Your task to perform on an android device: show emergency info Image 0: 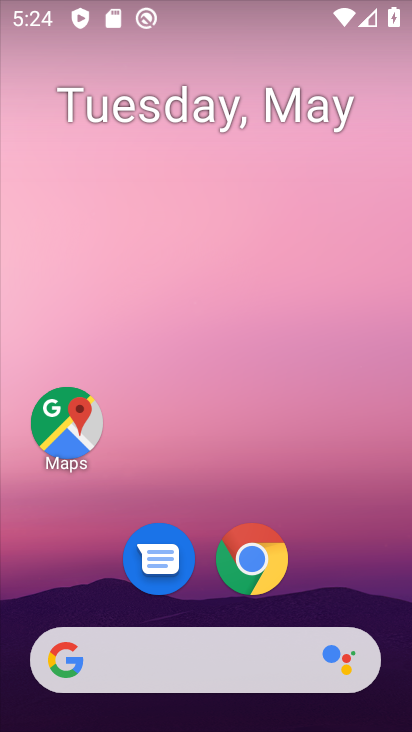
Step 0: drag from (198, 599) to (200, 275)
Your task to perform on an android device: show emergency info Image 1: 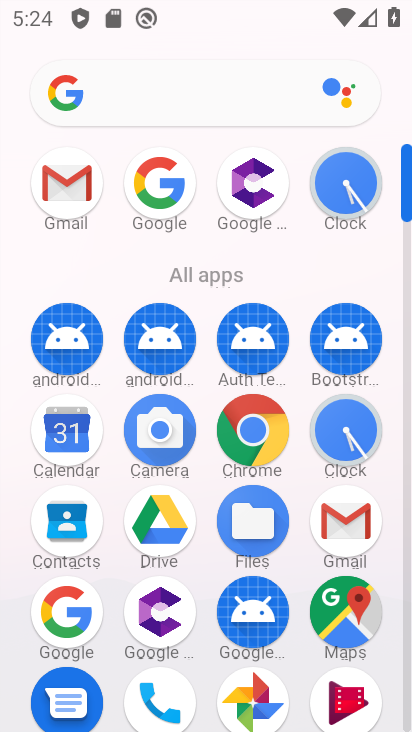
Step 1: drag from (274, 645) to (298, 353)
Your task to perform on an android device: show emergency info Image 2: 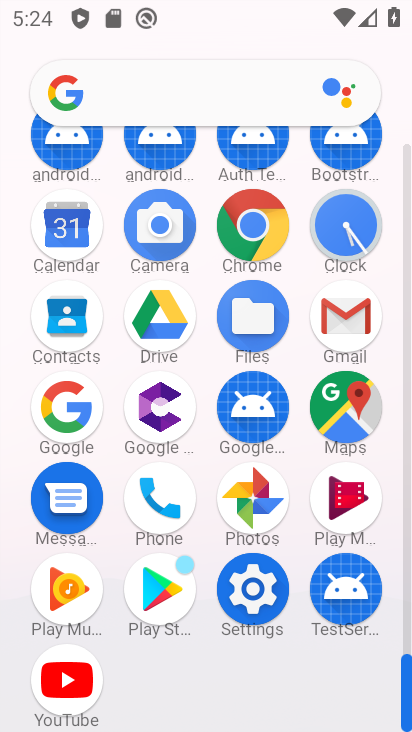
Step 2: click (252, 601)
Your task to perform on an android device: show emergency info Image 3: 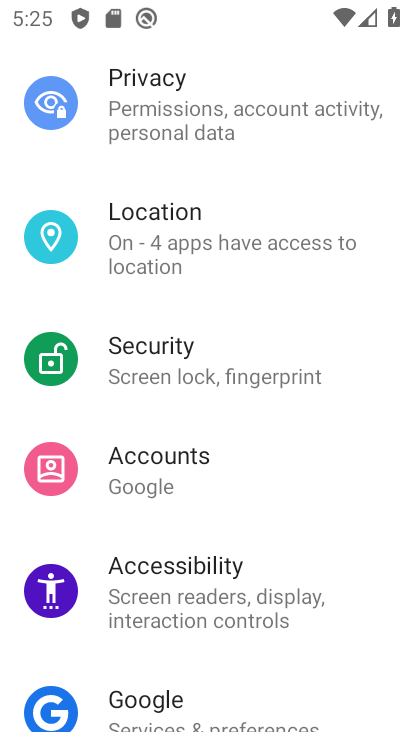
Step 3: drag from (187, 351) to (178, 420)
Your task to perform on an android device: show emergency info Image 4: 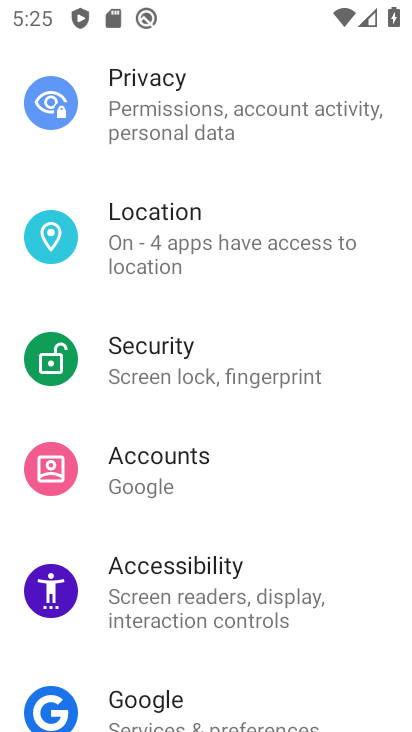
Step 4: drag from (178, 200) to (196, 328)
Your task to perform on an android device: show emergency info Image 5: 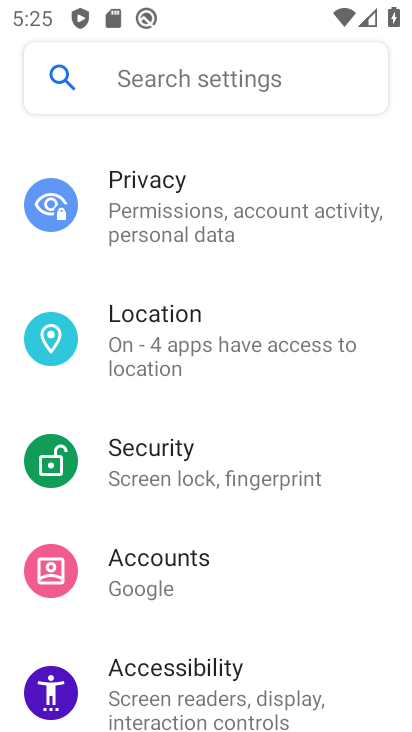
Step 5: drag from (199, 289) to (197, 358)
Your task to perform on an android device: show emergency info Image 6: 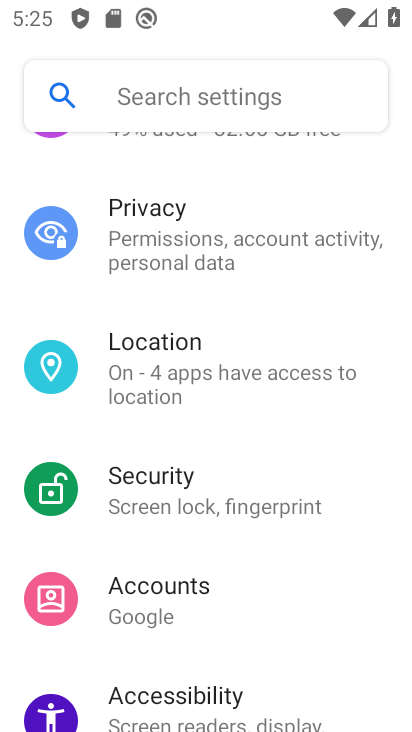
Step 6: drag from (210, 236) to (207, 429)
Your task to perform on an android device: show emergency info Image 7: 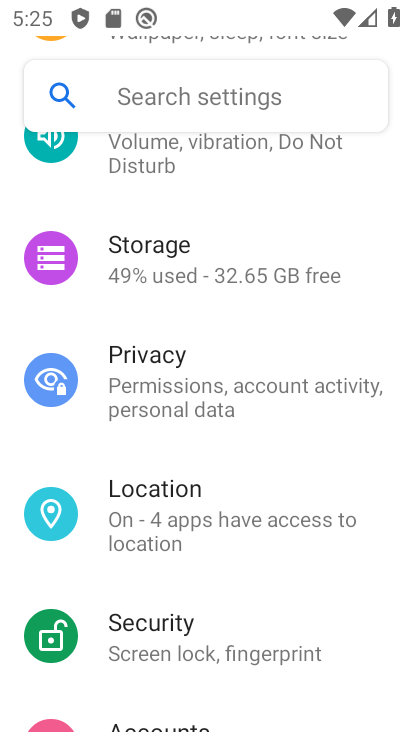
Step 7: drag from (194, 610) to (226, 366)
Your task to perform on an android device: show emergency info Image 8: 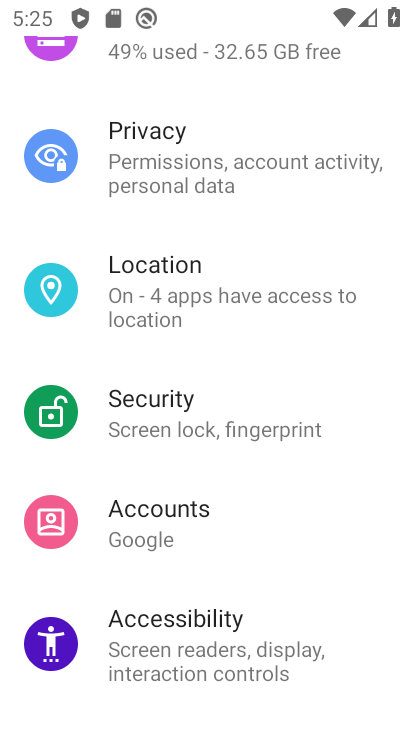
Step 8: drag from (179, 532) to (208, 225)
Your task to perform on an android device: show emergency info Image 9: 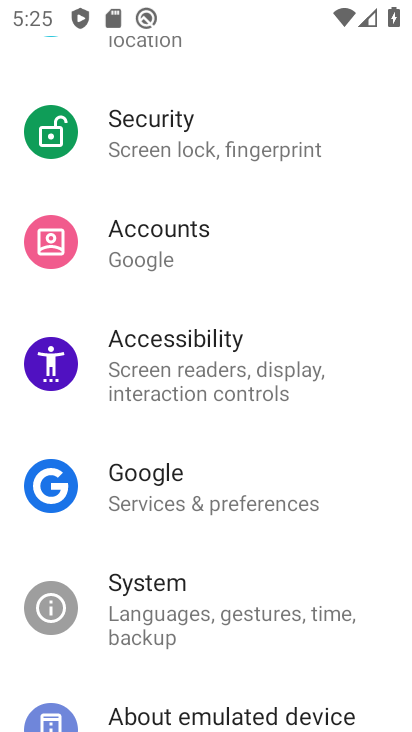
Step 9: drag from (197, 436) to (209, 160)
Your task to perform on an android device: show emergency info Image 10: 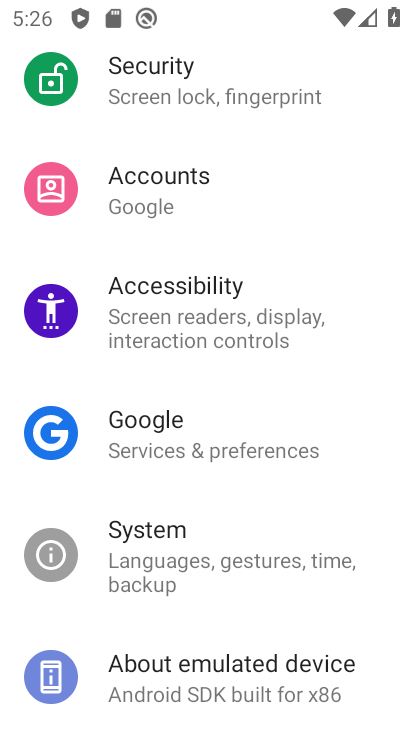
Step 10: click (186, 678)
Your task to perform on an android device: show emergency info Image 11: 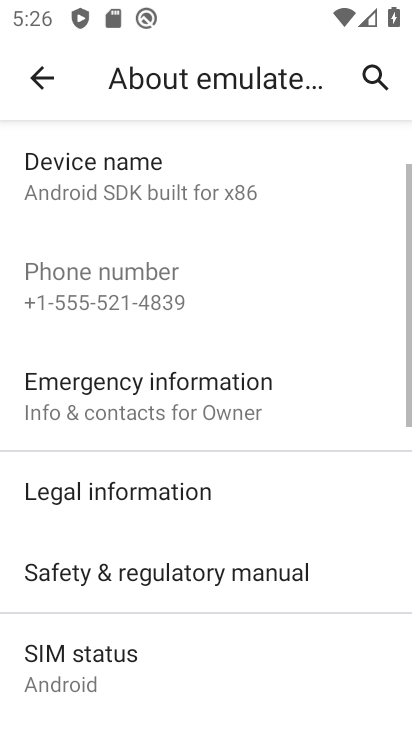
Step 11: drag from (175, 608) to (218, 306)
Your task to perform on an android device: show emergency info Image 12: 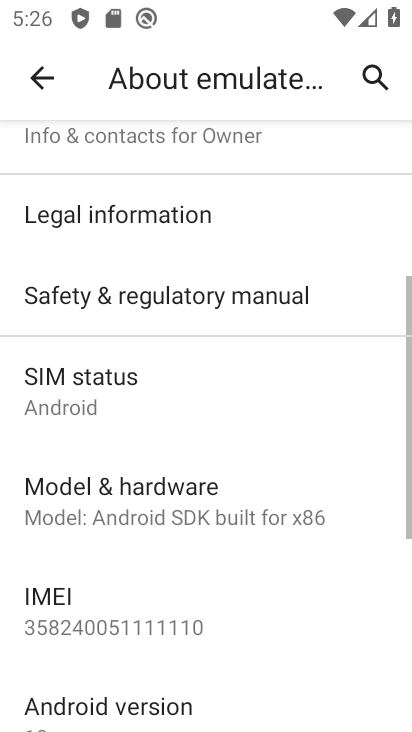
Step 12: drag from (140, 634) to (164, 350)
Your task to perform on an android device: show emergency info Image 13: 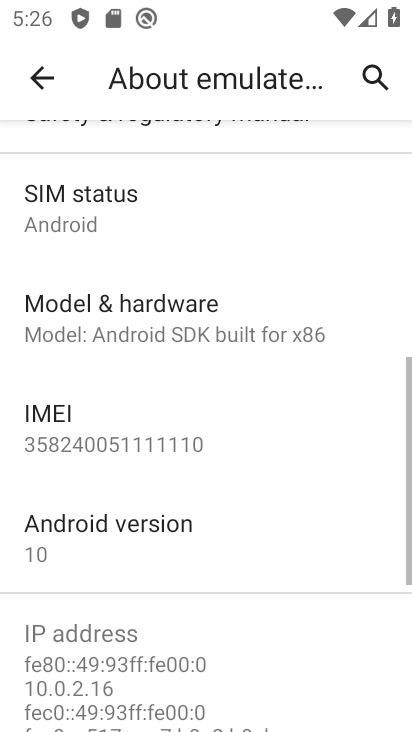
Step 13: click (95, 598)
Your task to perform on an android device: show emergency info Image 14: 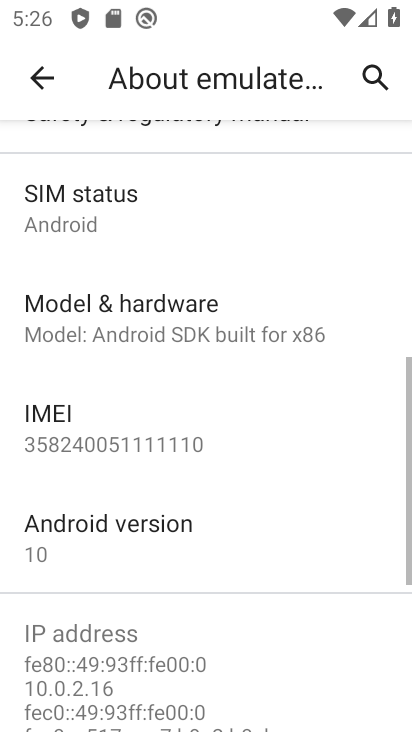
Step 14: click (84, 561)
Your task to perform on an android device: show emergency info Image 15: 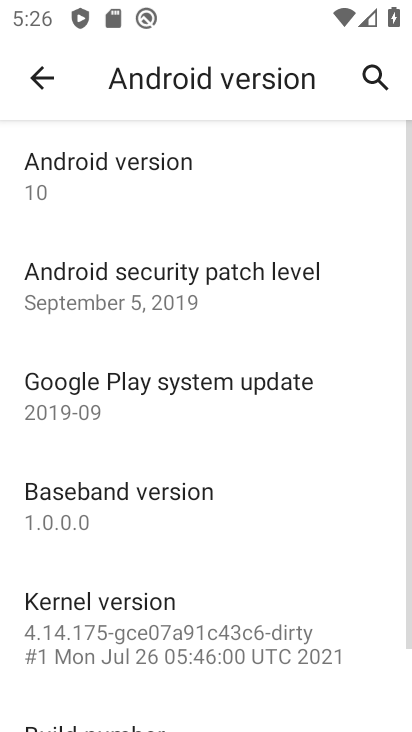
Step 15: task complete